Your task to perform on an android device: add a label to a message in the gmail app Image 0: 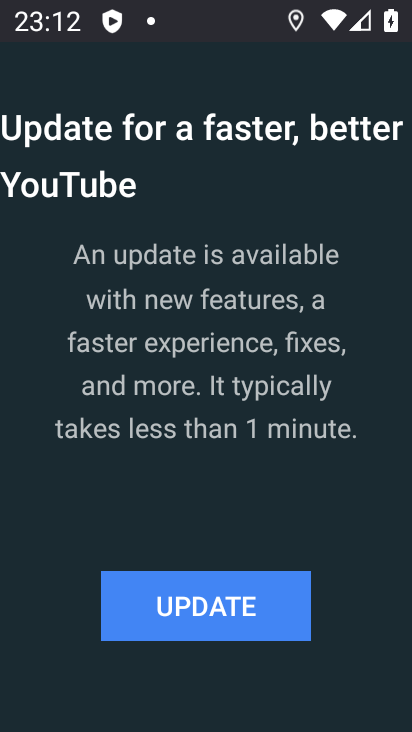
Step 0: press back button
Your task to perform on an android device: add a label to a message in the gmail app Image 1: 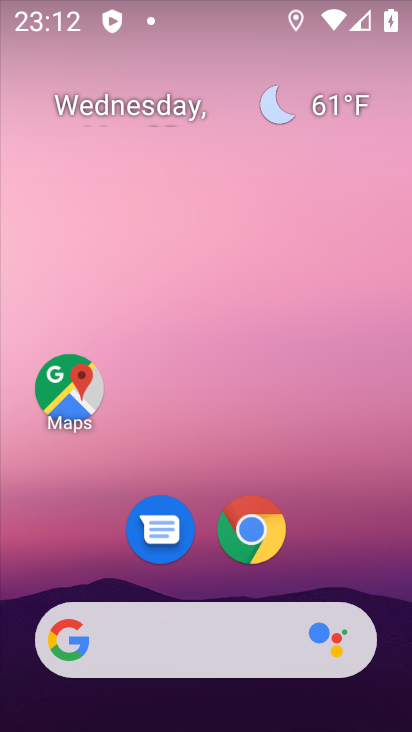
Step 1: drag from (379, 564) to (384, 211)
Your task to perform on an android device: add a label to a message in the gmail app Image 2: 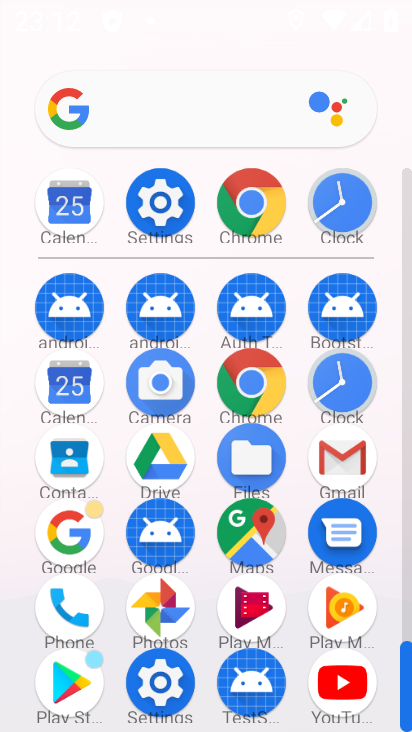
Step 2: click (352, 469)
Your task to perform on an android device: add a label to a message in the gmail app Image 3: 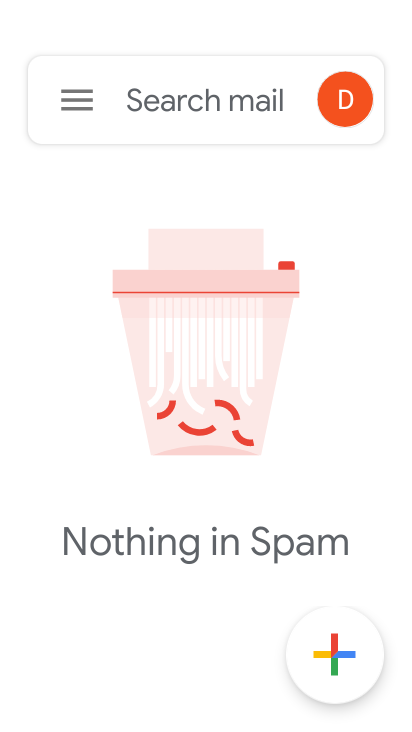
Step 3: click (81, 108)
Your task to perform on an android device: add a label to a message in the gmail app Image 4: 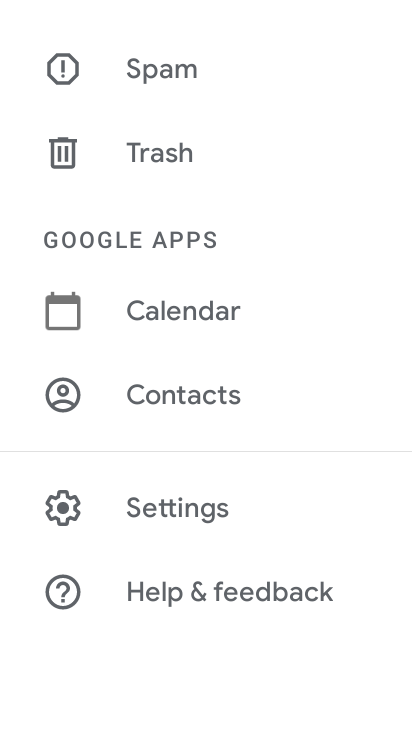
Step 4: drag from (317, 196) to (322, 304)
Your task to perform on an android device: add a label to a message in the gmail app Image 5: 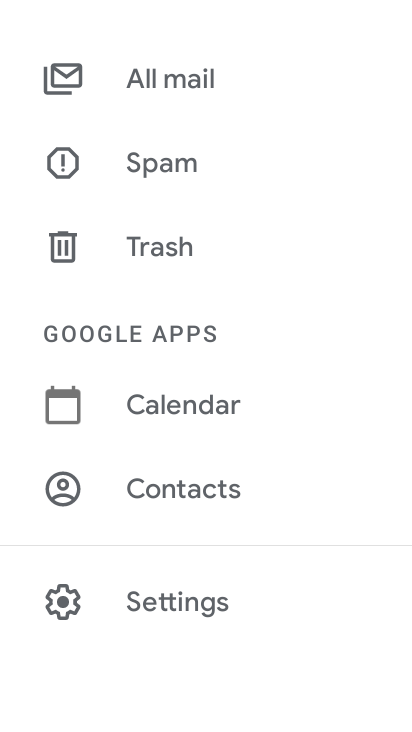
Step 5: drag from (300, 190) to (294, 292)
Your task to perform on an android device: add a label to a message in the gmail app Image 6: 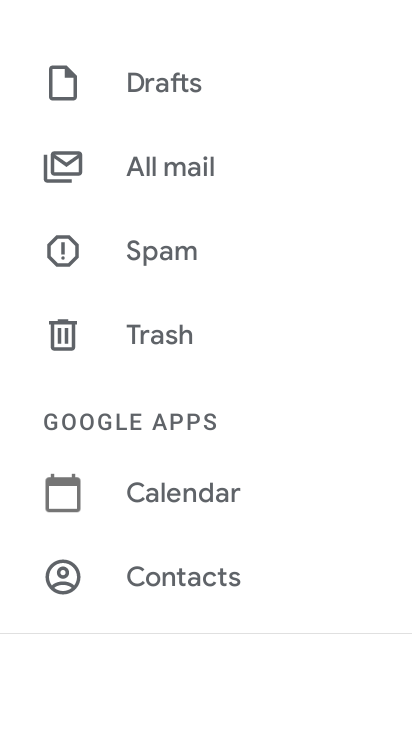
Step 6: drag from (300, 164) to (313, 263)
Your task to perform on an android device: add a label to a message in the gmail app Image 7: 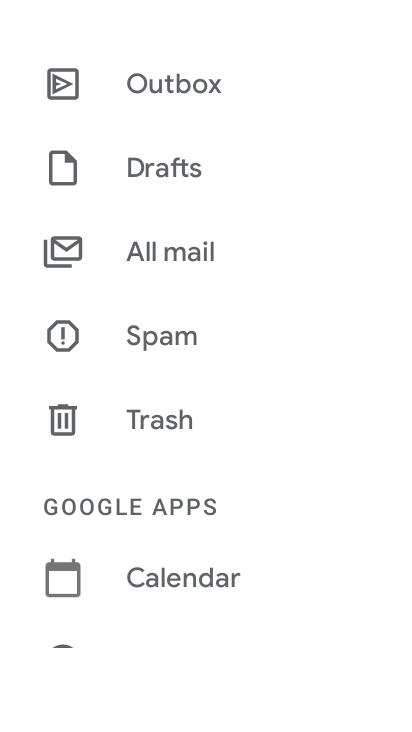
Step 7: drag from (296, 140) to (277, 263)
Your task to perform on an android device: add a label to a message in the gmail app Image 8: 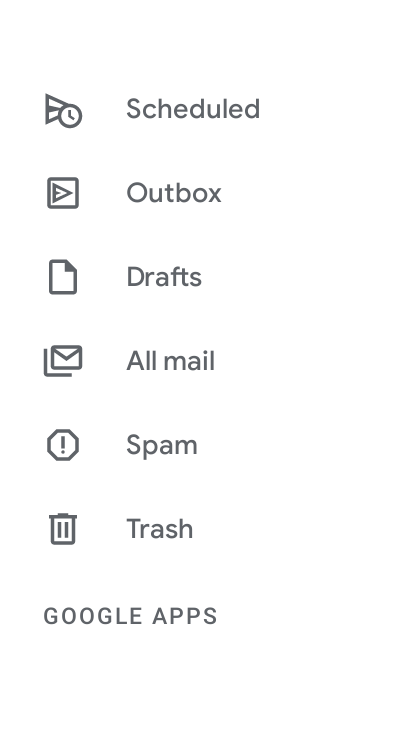
Step 8: drag from (280, 143) to (278, 253)
Your task to perform on an android device: add a label to a message in the gmail app Image 9: 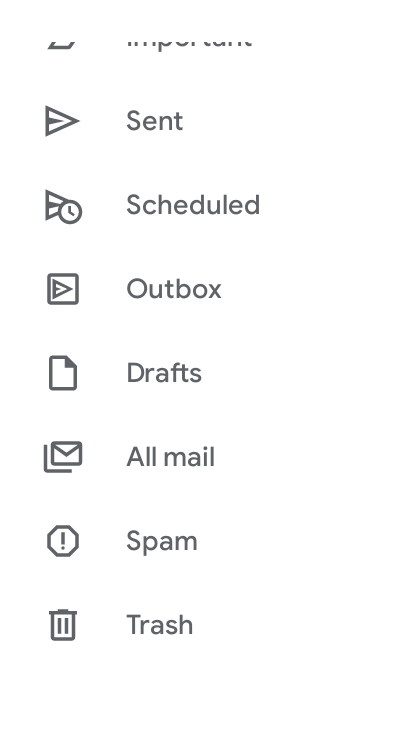
Step 9: drag from (271, 129) to (268, 226)
Your task to perform on an android device: add a label to a message in the gmail app Image 10: 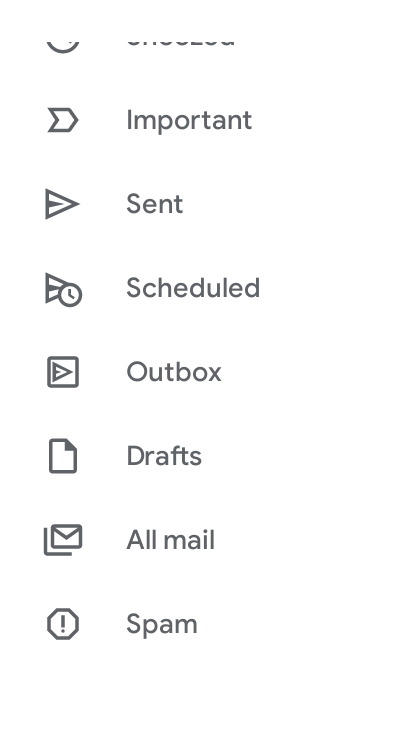
Step 10: drag from (277, 111) to (295, 244)
Your task to perform on an android device: add a label to a message in the gmail app Image 11: 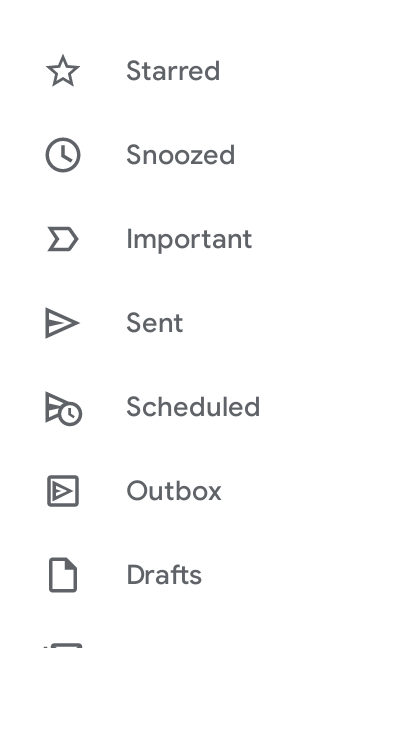
Step 11: drag from (290, 123) to (282, 244)
Your task to perform on an android device: add a label to a message in the gmail app Image 12: 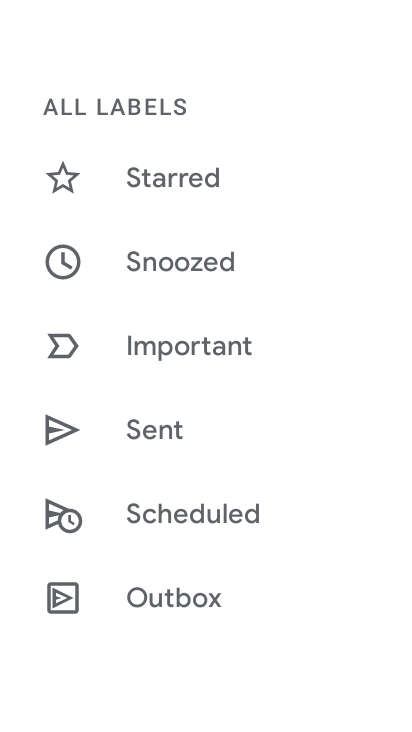
Step 12: drag from (283, 118) to (290, 228)
Your task to perform on an android device: add a label to a message in the gmail app Image 13: 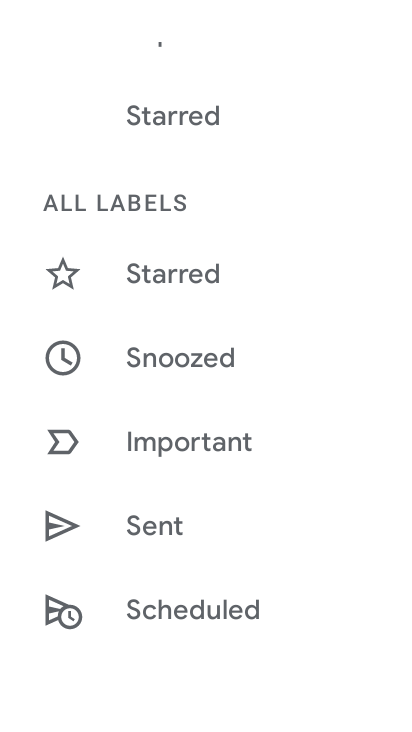
Step 13: drag from (276, 115) to (274, 230)
Your task to perform on an android device: add a label to a message in the gmail app Image 14: 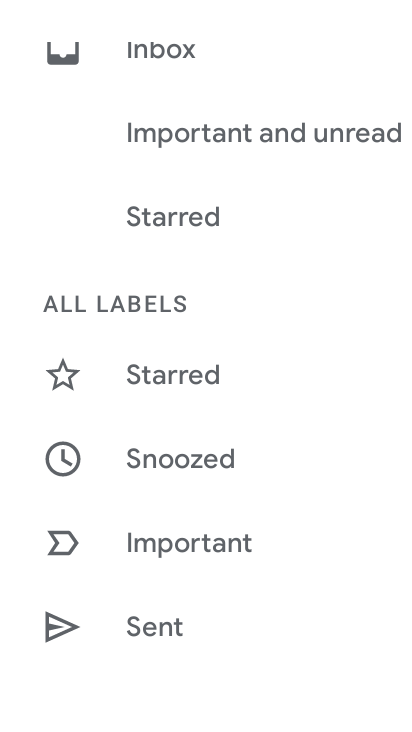
Step 14: drag from (269, 88) to (250, 220)
Your task to perform on an android device: add a label to a message in the gmail app Image 15: 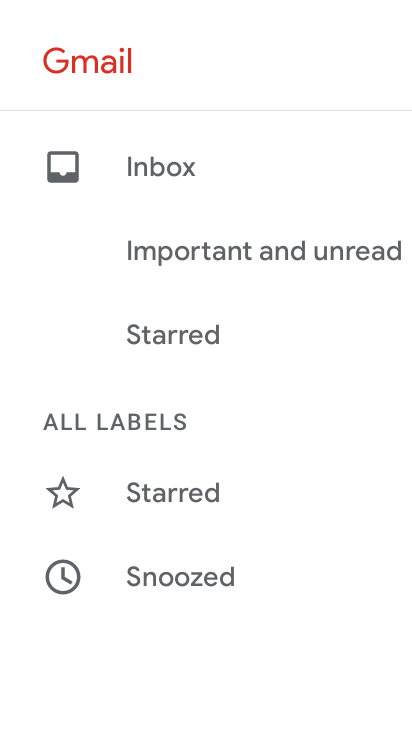
Step 15: click (214, 179)
Your task to perform on an android device: add a label to a message in the gmail app Image 16: 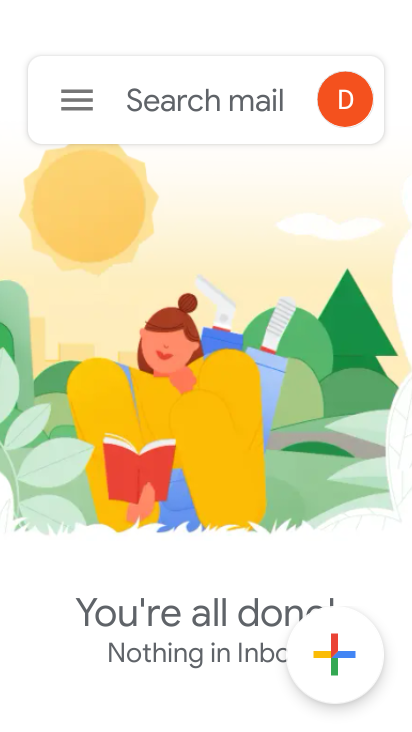
Step 16: task complete